Your task to perform on an android device: toggle airplane mode Image 0: 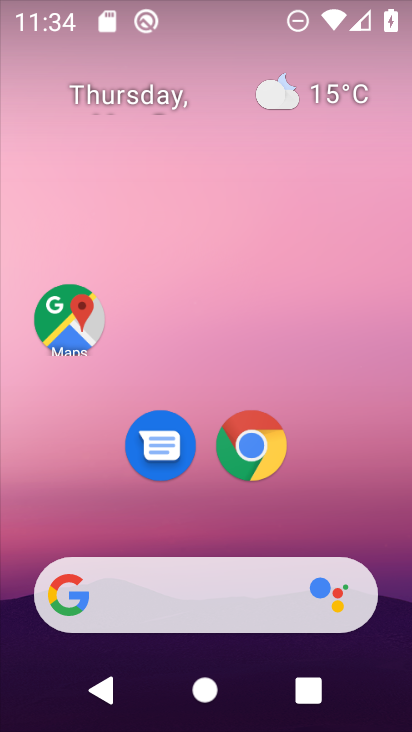
Step 0: drag from (356, 521) to (338, 114)
Your task to perform on an android device: toggle airplane mode Image 1: 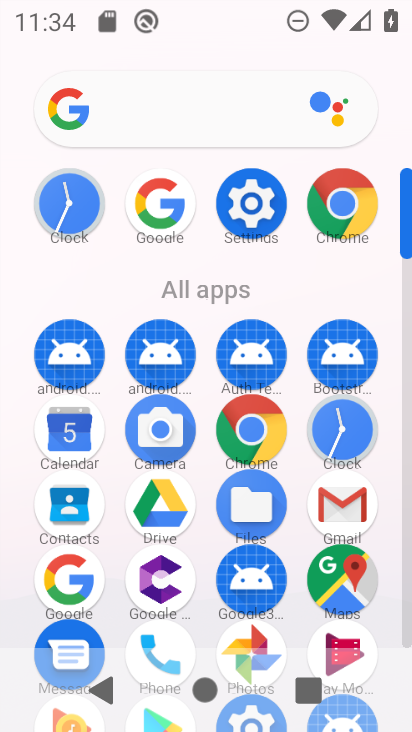
Step 1: click (257, 204)
Your task to perform on an android device: toggle airplane mode Image 2: 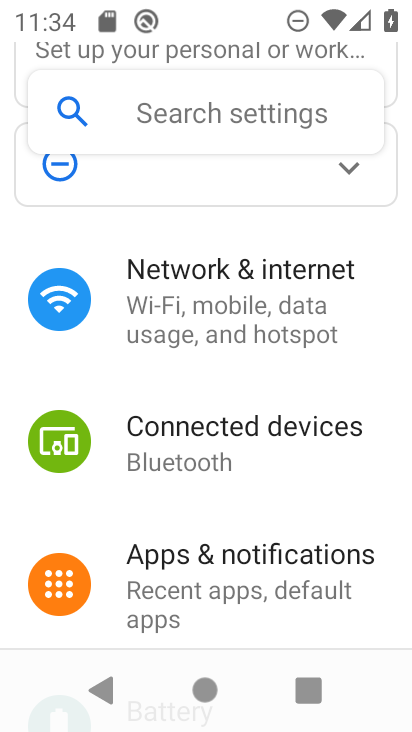
Step 2: drag from (230, 608) to (258, 193)
Your task to perform on an android device: toggle airplane mode Image 3: 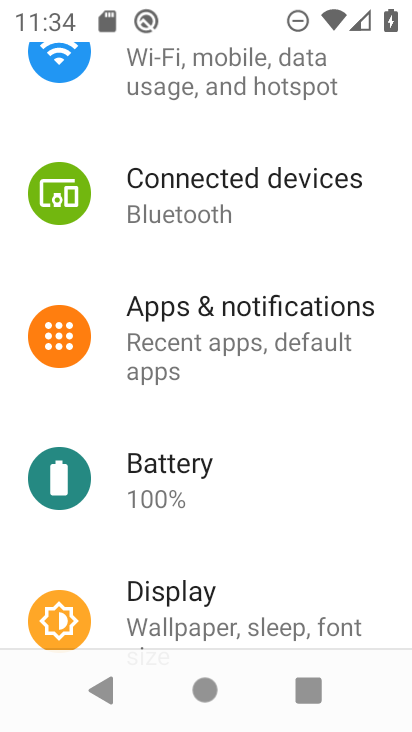
Step 3: click (230, 90)
Your task to perform on an android device: toggle airplane mode Image 4: 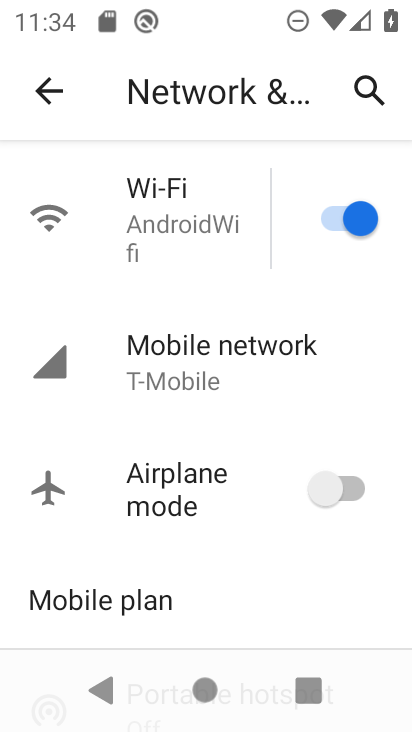
Step 4: click (355, 486)
Your task to perform on an android device: toggle airplane mode Image 5: 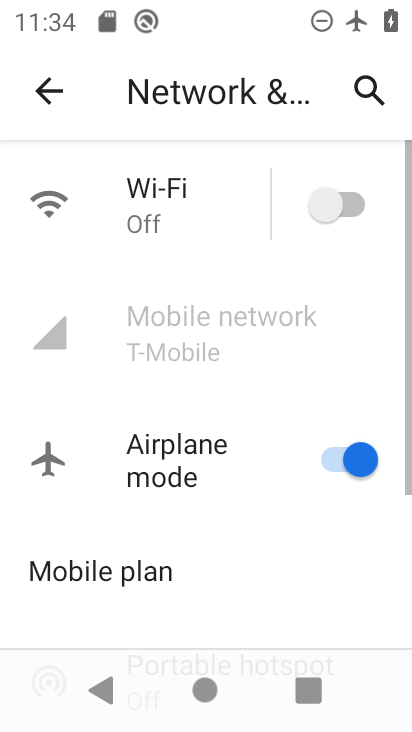
Step 5: task complete